Your task to perform on an android device: Open location settings Image 0: 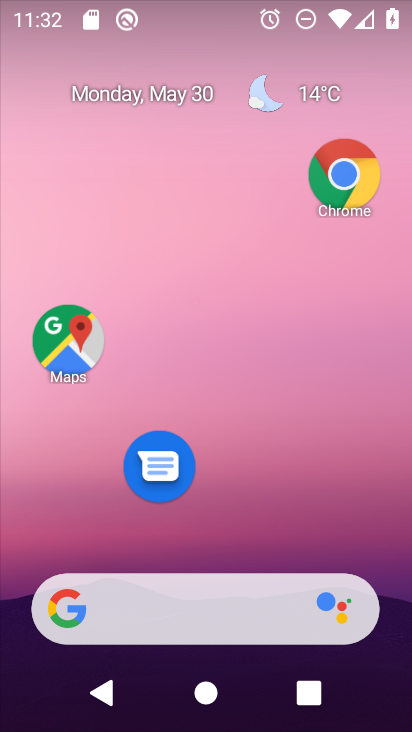
Step 0: drag from (264, 380) to (183, 60)
Your task to perform on an android device: Open location settings Image 1: 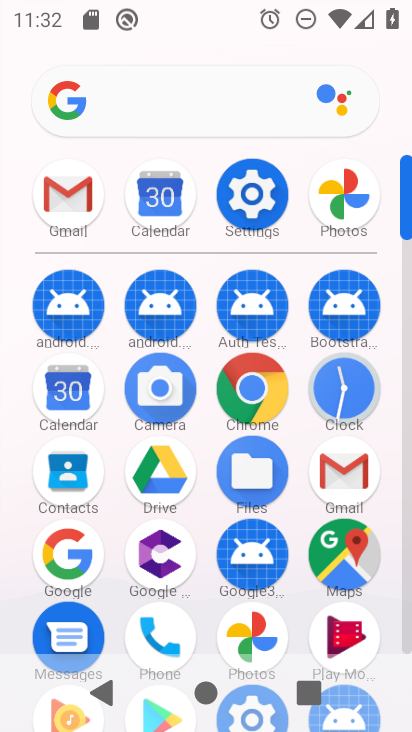
Step 1: click (239, 196)
Your task to perform on an android device: Open location settings Image 2: 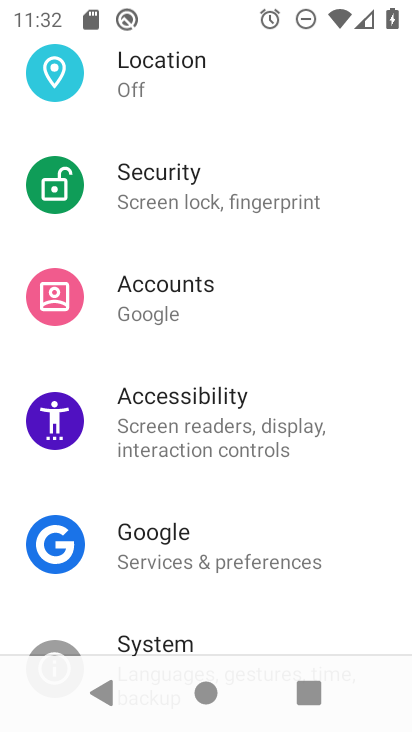
Step 2: drag from (239, 140) to (239, 372)
Your task to perform on an android device: Open location settings Image 3: 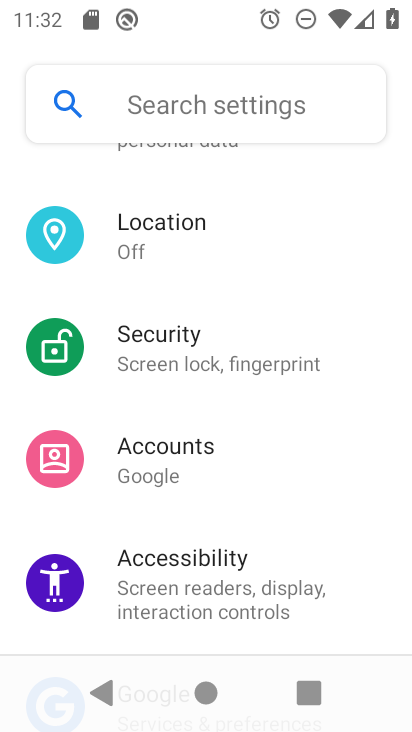
Step 3: click (237, 266)
Your task to perform on an android device: Open location settings Image 4: 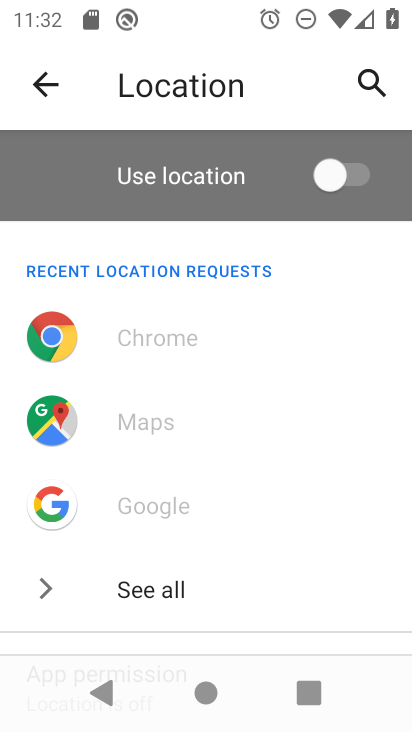
Step 4: task complete